Your task to perform on an android device: Is it going to rain tomorrow? Image 0: 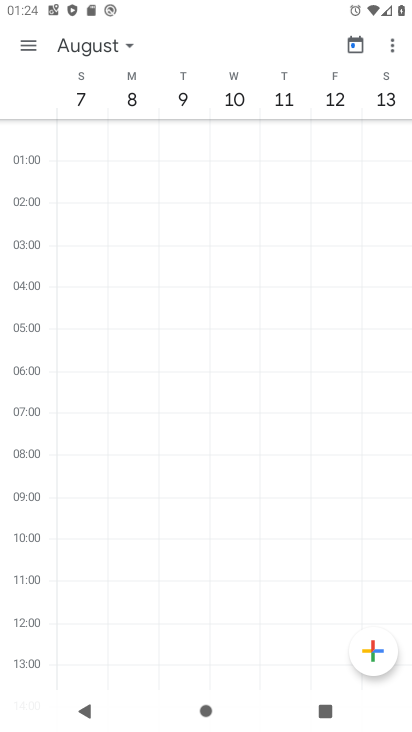
Step 0: press home button
Your task to perform on an android device: Is it going to rain tomorrow? Image 1: 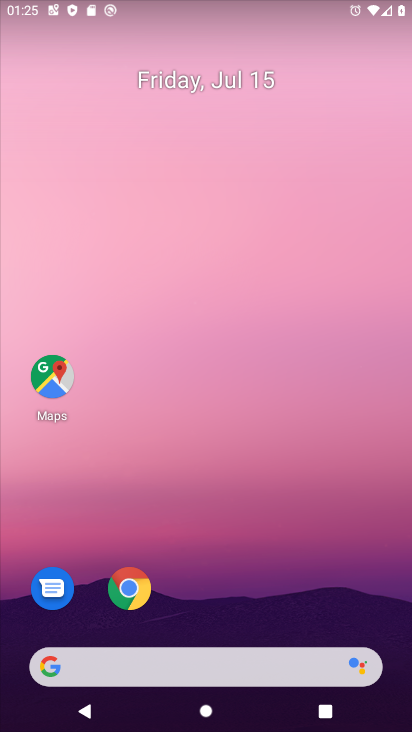
Step 1: task complete